Your task to perform on an android device: search for starred emails in the gmail app Image 0: 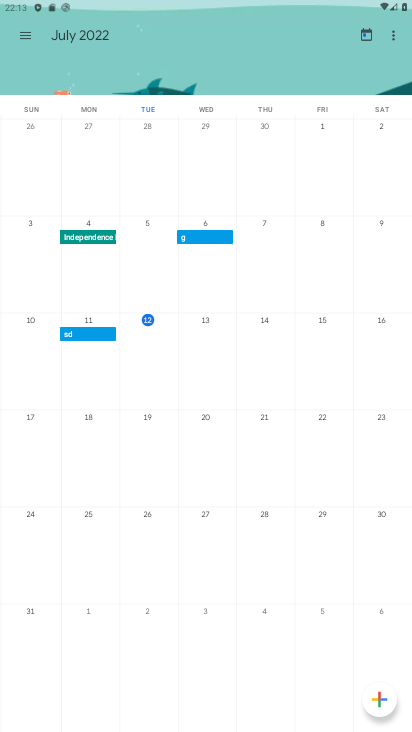
Step 0: press home button
Your task to perform on an android device: search for starred emails in the gmail app Image 1: 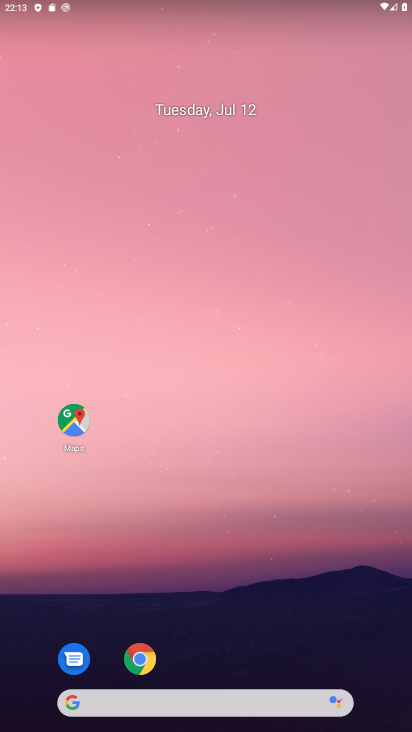
Step 1: drag from (234, 614) to (245, 303)
Your task to perform on an android device: search for starred emails in the gmail app Image 2: 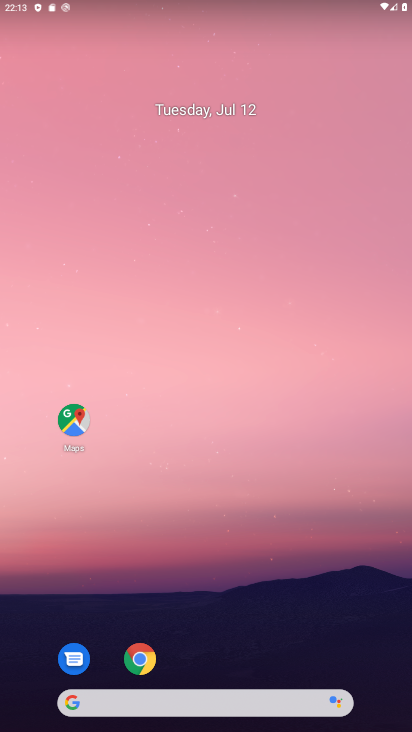
Step 2: drag from (269, 616) to (277, 285)
Your task to perform on an android device: search for starred emails in the gmail app Image 3: 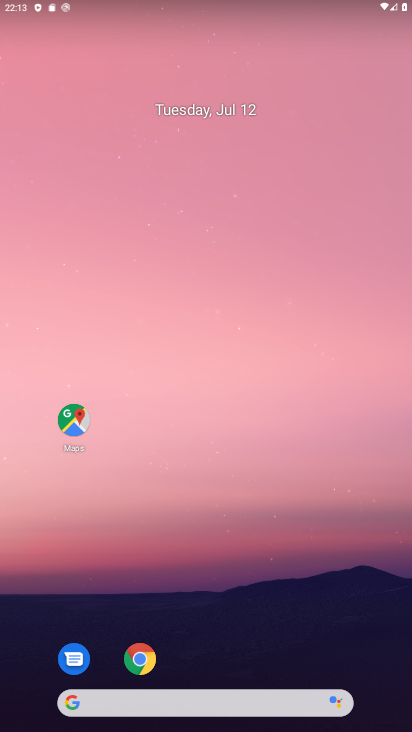
Step 3: drag from (244, 676) to (261, 251)
Your task to perform on an android device: search for starred emails in the gmail app Image 4: 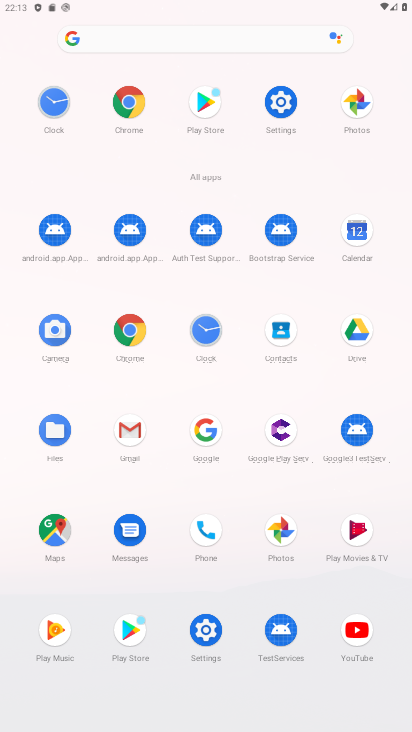
Step 4: click (133, 418)
Your task to perform on an android device: search for starred emails in the gmail app Image 5: 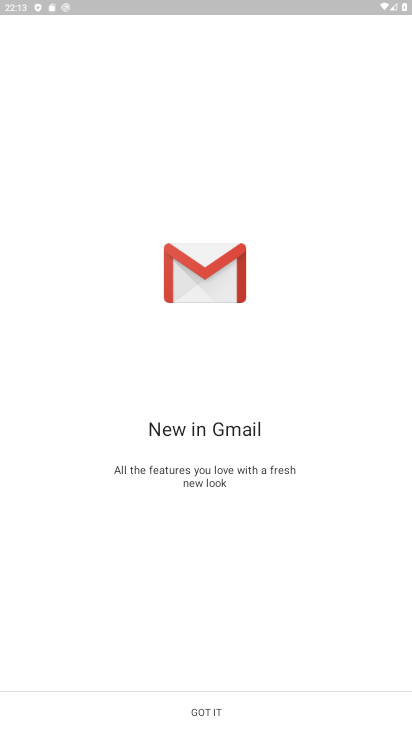
Step 5: click (248, 694)
Your task to perform on an android device: search for starred emails in the gmail app Image 6: 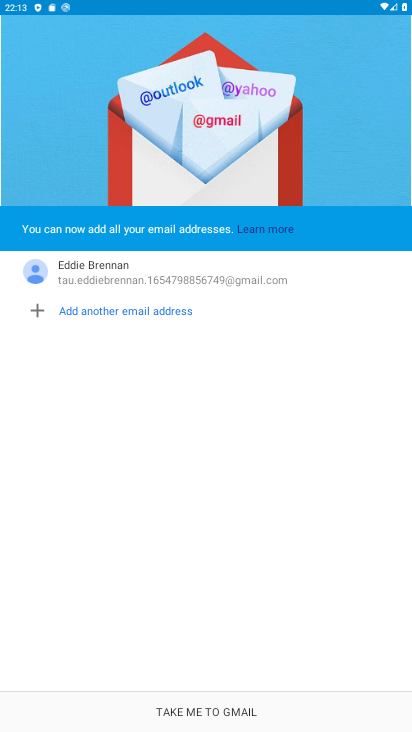
Step 6: click (226, 709)
Your task to perform on an android device: search for starred emails in the gmail app Image 7: 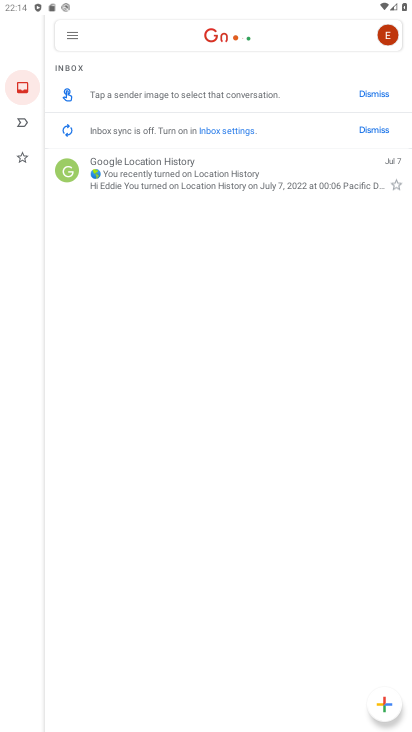
Step 7: click (22, 33)
Your task to perform on an android device: search for starred emails in the gmail app Image 8: 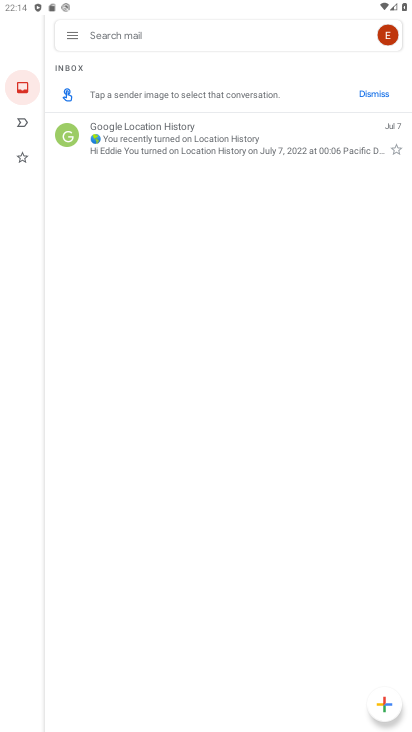
Step 8: click (65, 26)
Your task to perform on an android device: search for starred emails in the gmail app Image 9: 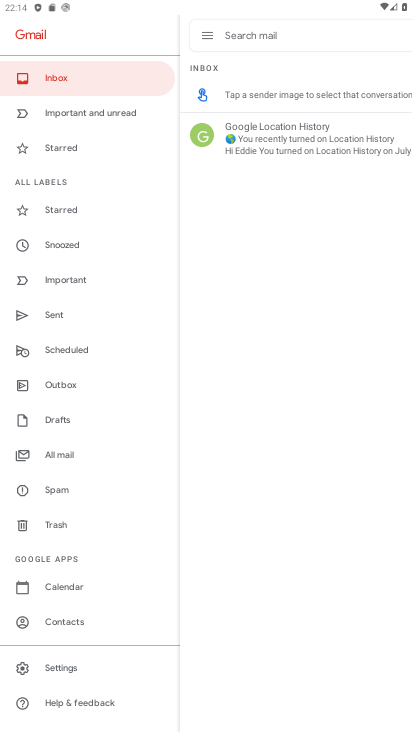
Step 9: click (61, 143)
Your task to perform on an android device: search for starred emails in the gmail app Image 10: 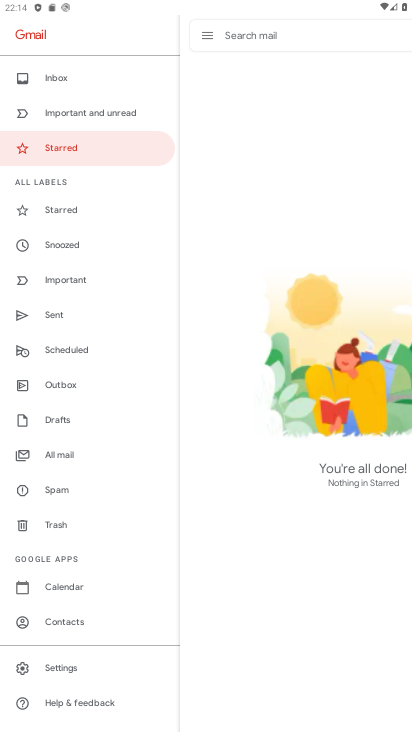
Step 10: task complete